Your task to perform on an android device: Go to CNN.com Image 0: 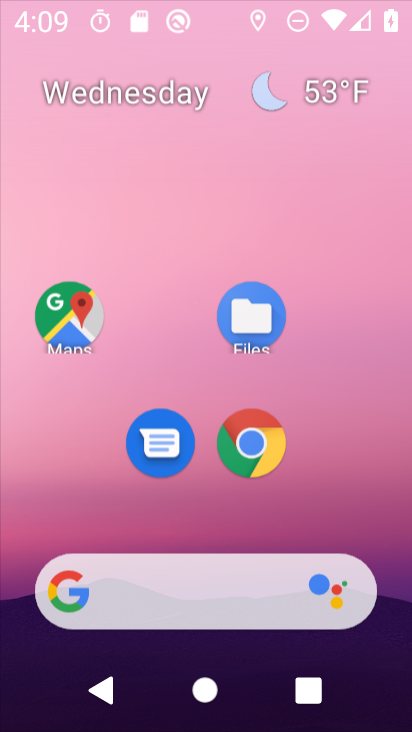
Step 0: drag from (313, 487) to (393, 46)
Your task to perform on an android device: Go to CNN.com Image 1: 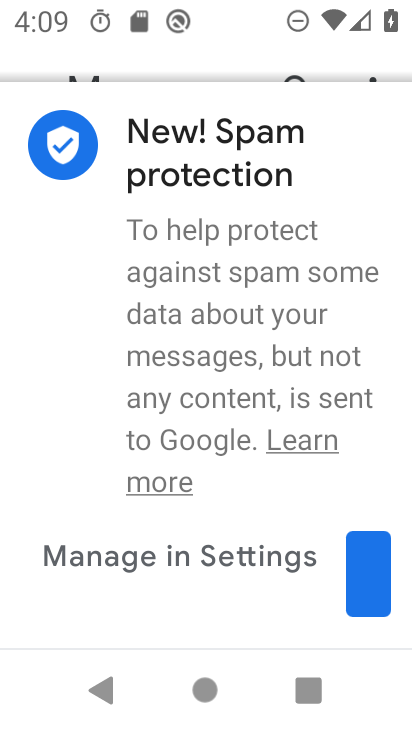
Step 1: press home button
Your task to perform on an android device: Go to CNN.com Image 2: 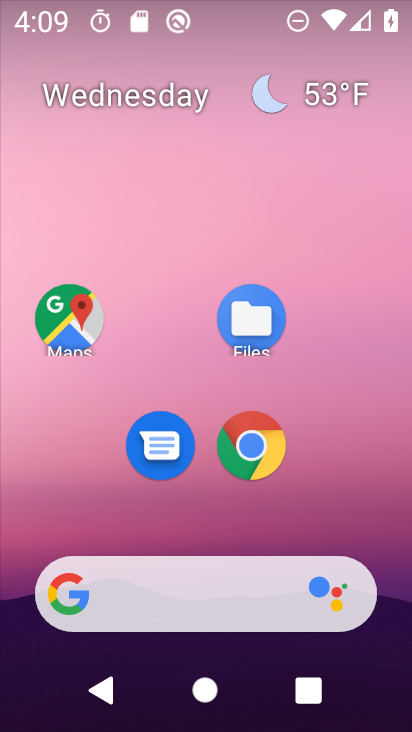
Step 2: click (259, 449)
Your task to perform on an android device: Go to CNN.com Image 3: 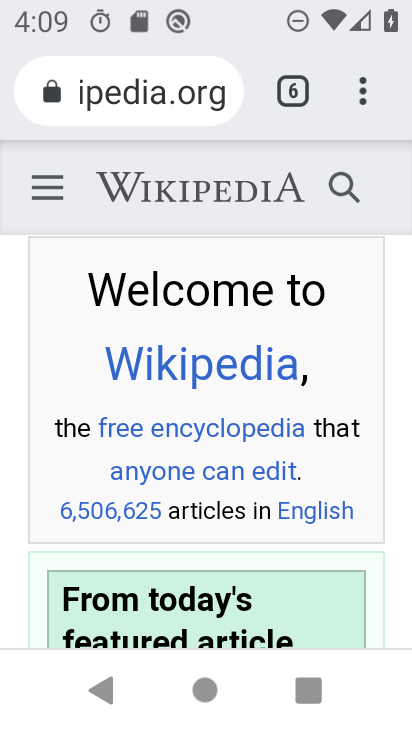
Step 3: click (295, 75)
Your task to perform on an android device: Go to CNN.com Image 4: 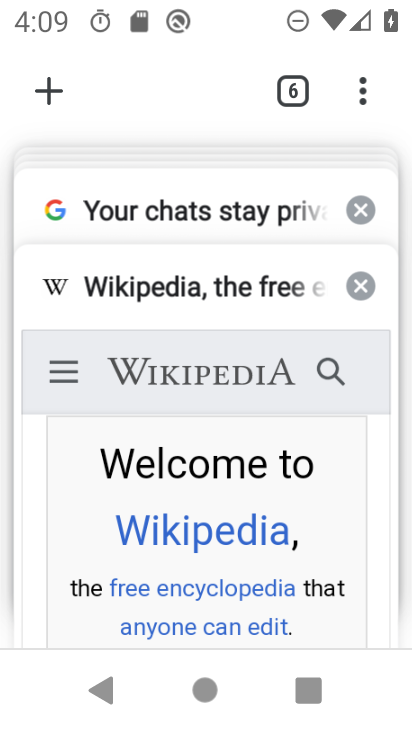
Step 4: drag from (225, 205) to (246, 379)
Your task to perform on an android device: Go to CNN.com Image 5: 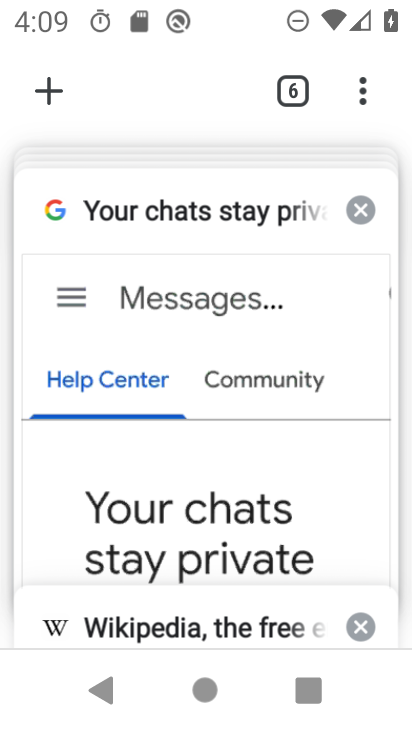
Step 5: drag from (258, 263) to (270, 457)
Your task to perform on an android device: Go to CNN.com Image 6: 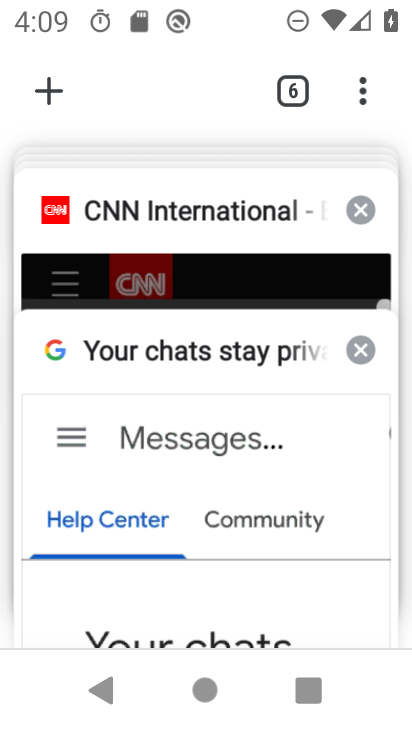
Step 6: click (277, 266)
Your task to perform on an android device: Go to CNN.com Image 7: 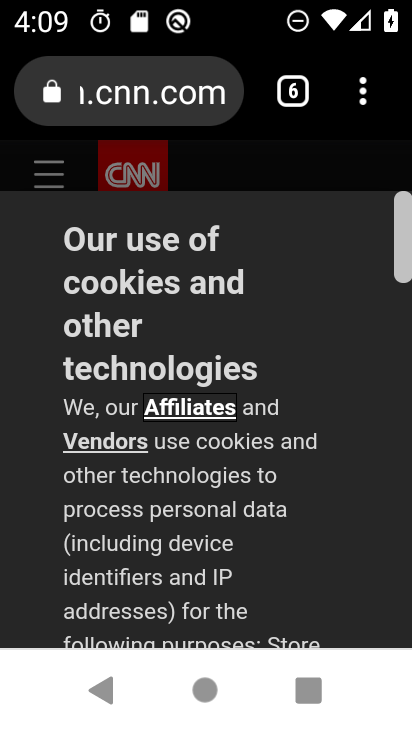
Step 7: task complete